Your task to perform on an android device: Go to network settings Image 0: 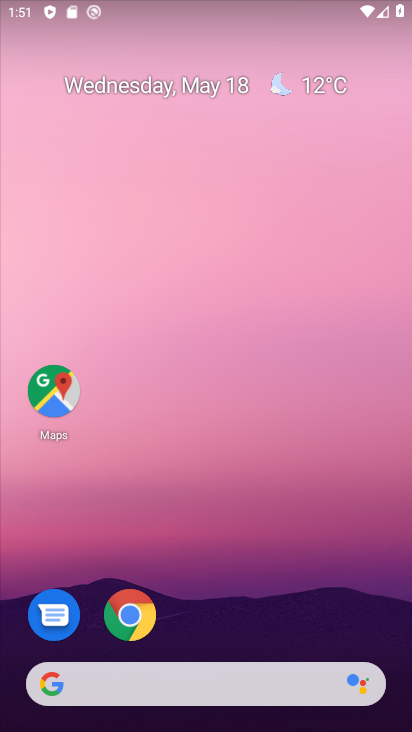
Step 0: drag from (343, 623) to (341, 53)
Your task to perform on an android device: Go to network settings Image 1: 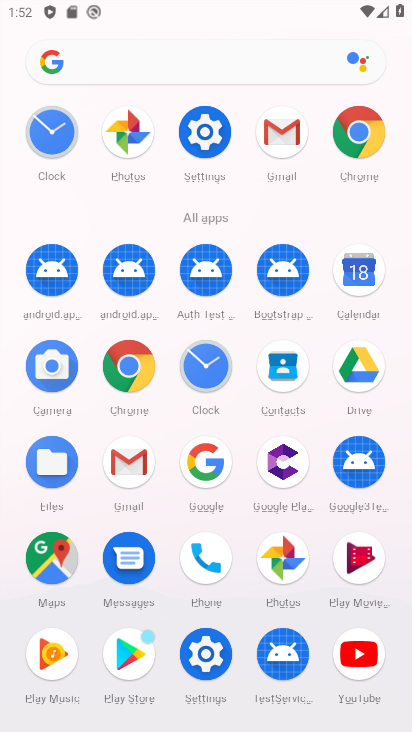
Step 1: click (223, 647)
Your task to perform on an android device: Go to network settings Image 2: 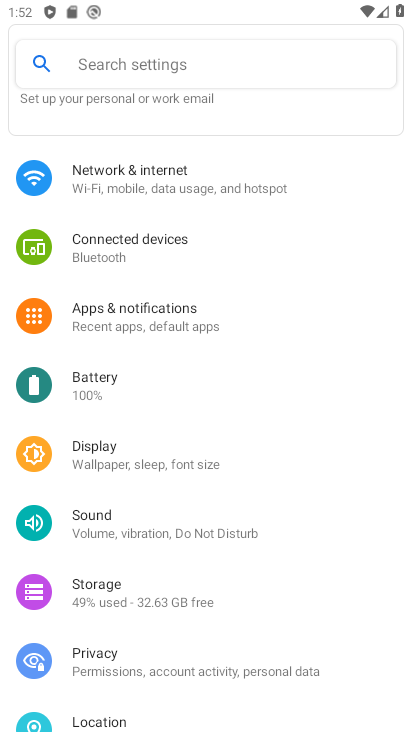
Step 2: click (153, 195)
Your task to perform on an android device: Go to network settings Image 3: 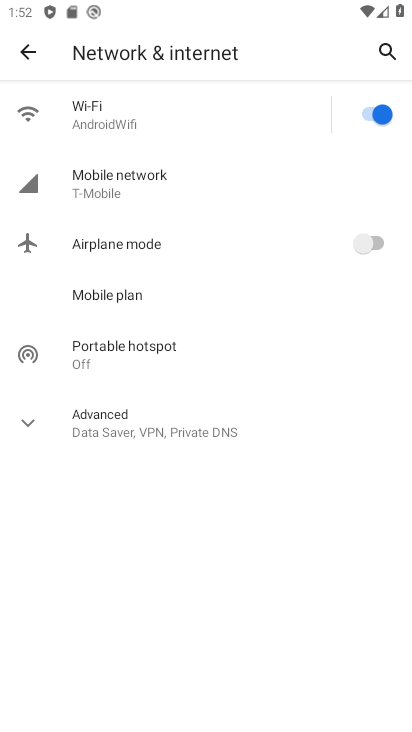
Step 3: task complete